Your task to perform on an android device: Open calendar and show me the third week of next month Image 0: 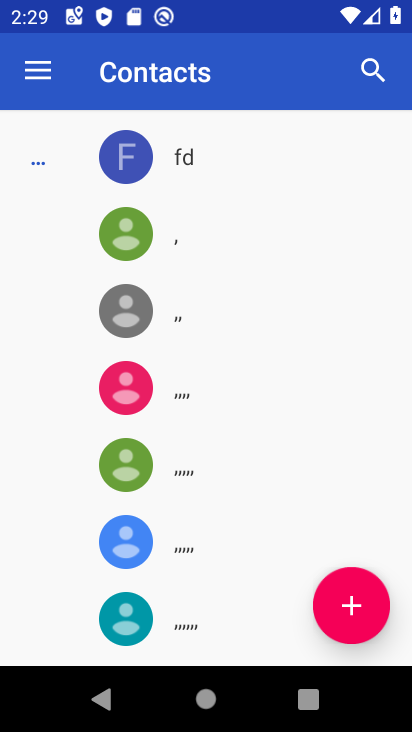
Step 0: press home button
Your task to perform on an android device: Open calendar and show me the third week of next month Image 1: 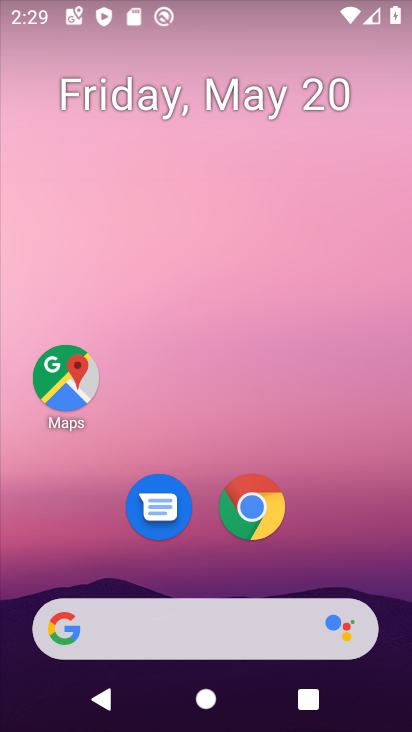
Step 1: drag from (243, 724) to (238, 178)
Your task to perform on an android device: Open calendar and show me the third week of next month Image 2: 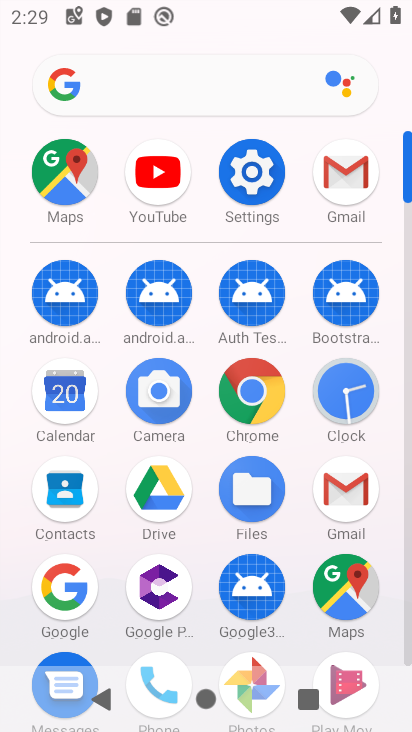
Step 2: click (71, 407)
Your task to perform on an android device: Open calendar and show me the third week of next month Image 3: 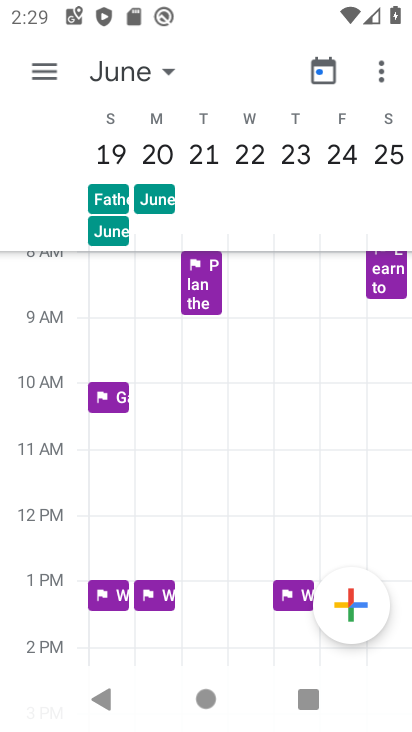
Step 3: click (168, 71)
Your task to perform on an android device: Open calendar and show me the third week of next month Image 4: 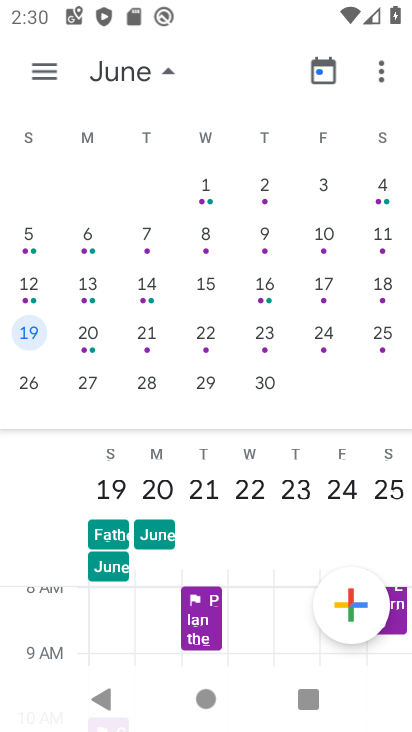
Step 4: click (83, 329)
Your task to perform on an android device: Open calendar and show me the third week of next month Image 5: 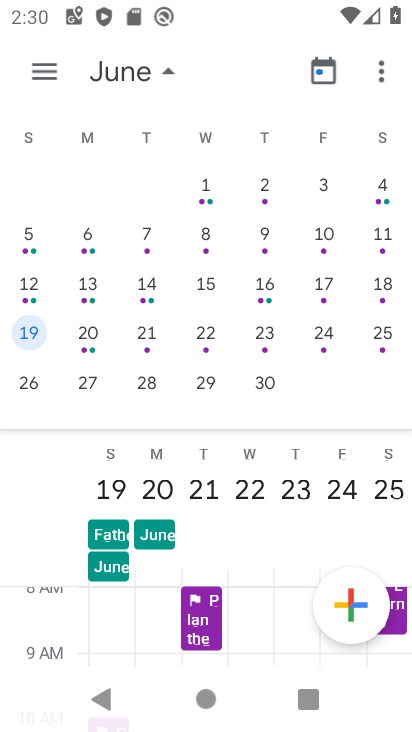
Step 5: click (88, 328)
Your task to perform on an android device: Open calendar and show me the third week of next month Image 6: 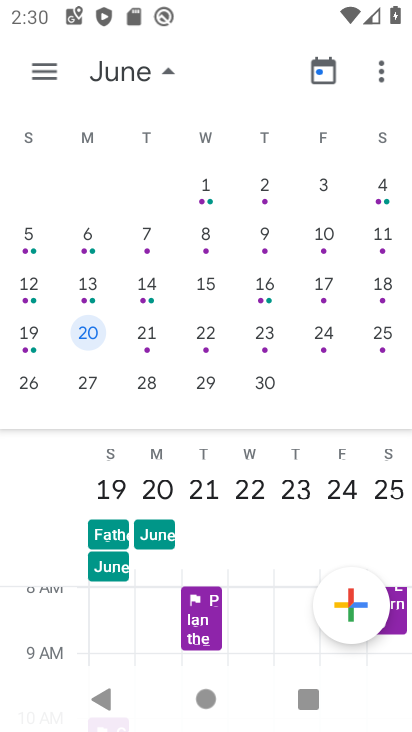
Step 6: click (88, 330)
Your task to perform on an android device: Open calendar and show me the third week of next month Image 7: 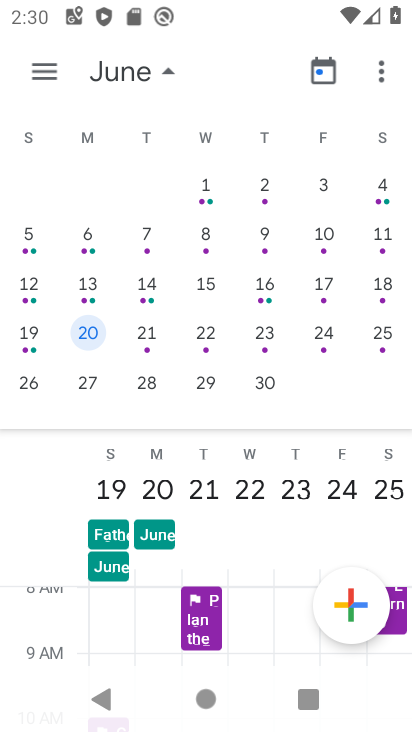
Step 7: click (37, 67)
Your task to perform on an android device: Open calendar and show me the third week of next month Image 8: 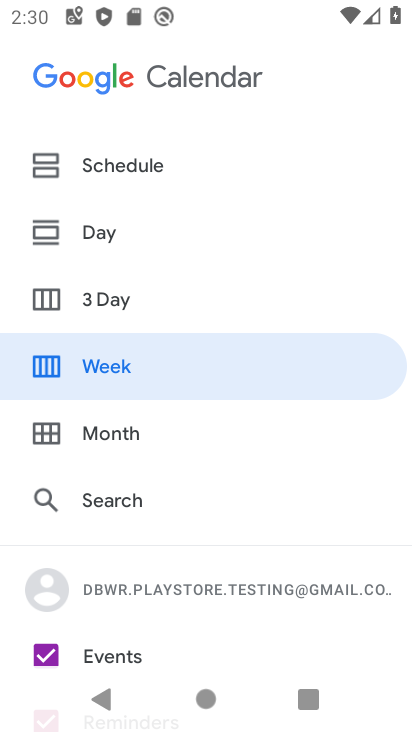
Step 8: click (90, 359)
Your task to perform on an android device: Open calendar and show me the third week of next month Image 9: 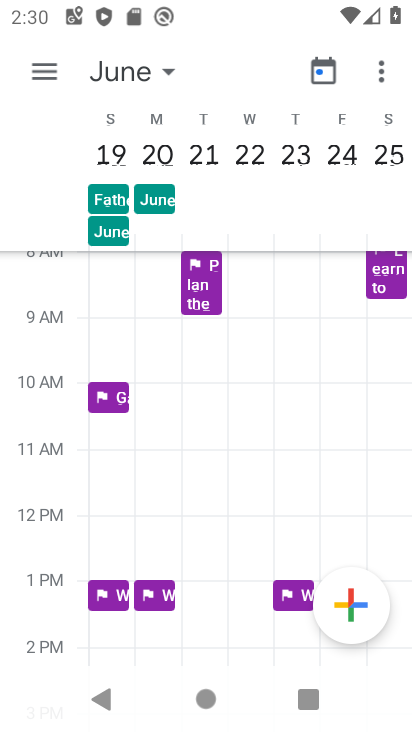
Step 9: task complete